Your task to perform on an android device: See recent photos Image 0: 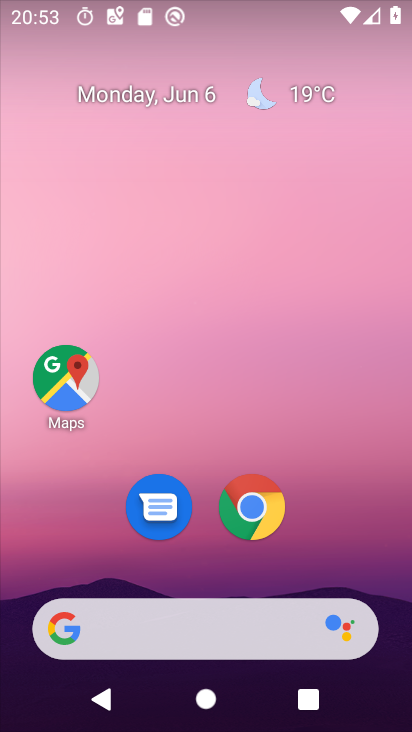
Step 0: drag from (334, 549) to (286, 222)
Your task to perform on an android device: See recent photos Image 1: 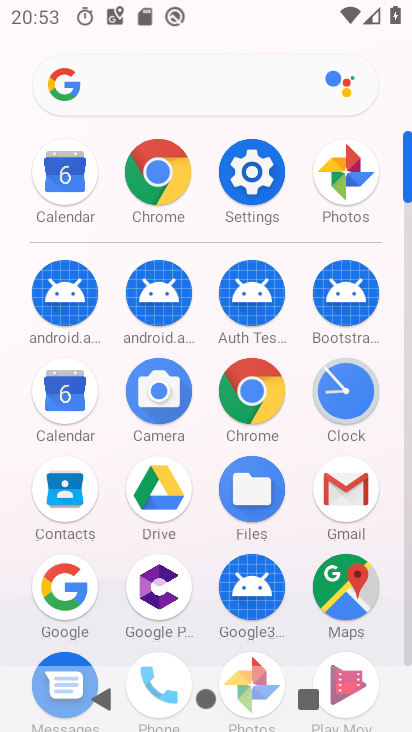
Step 1: click (351, 163)
Your task to perform on an android device: See recent photos Image 2: 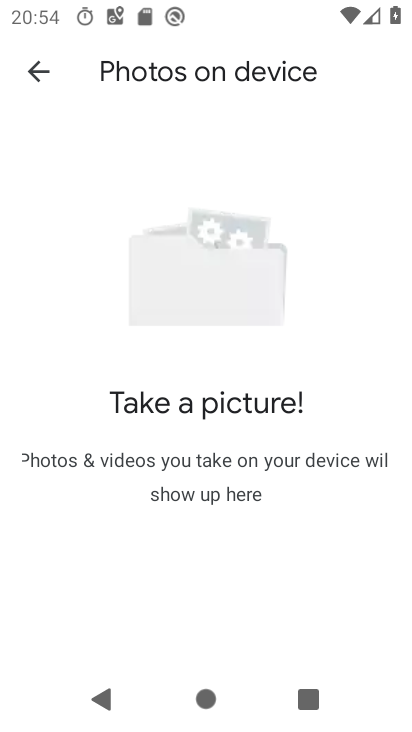
Step 2: click (40, 87)
Your task to perform on an android device: See recent photos Image 3: 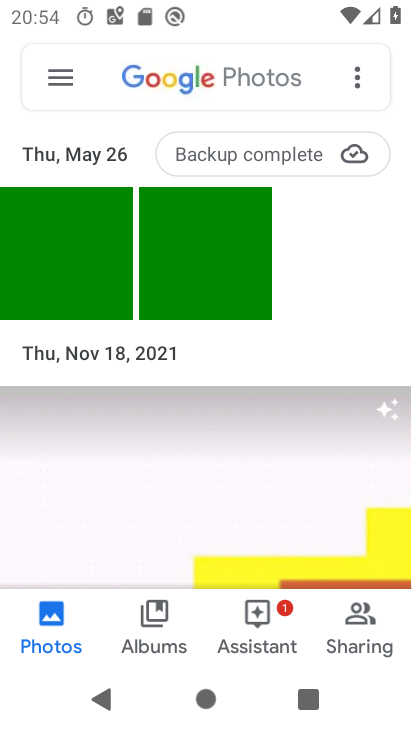
Step 3: task complete